Your task to perform on an android device: change text size in settings app Image 0: 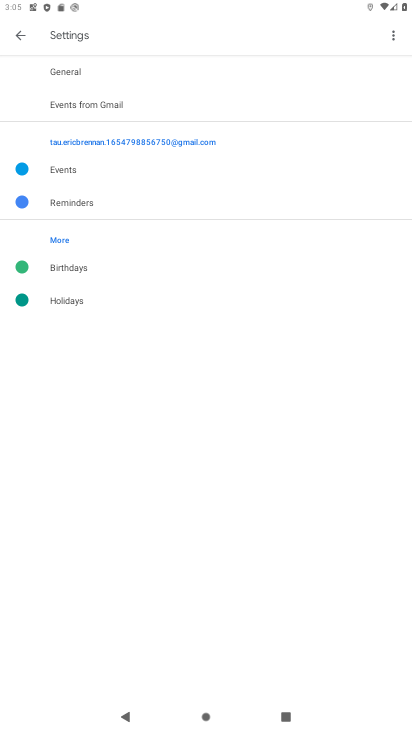
Step 0: press home button
Your task to perform on an android device: change text size in settings app Image 1: 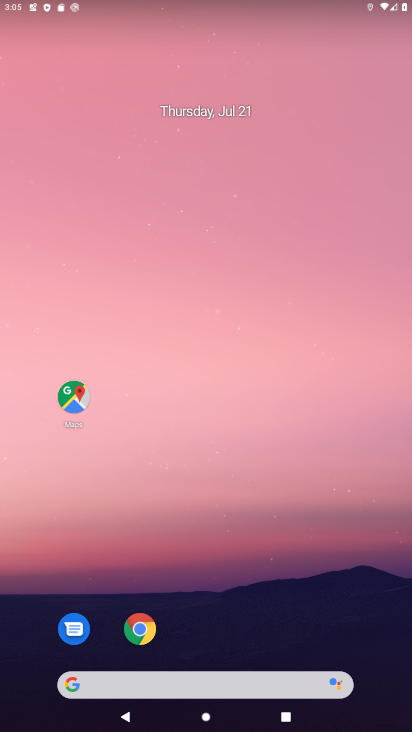
Step 1: drag from (213, 607) to (103, 6)
Your task to perform on an android device: change text size in settings app Image 2: 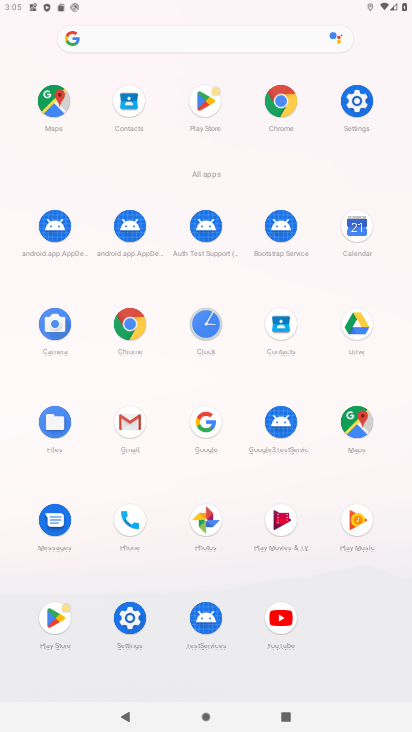
Step 2: click (133, 629)
Your task to perform on an android device: change text size in settings app Image 3: 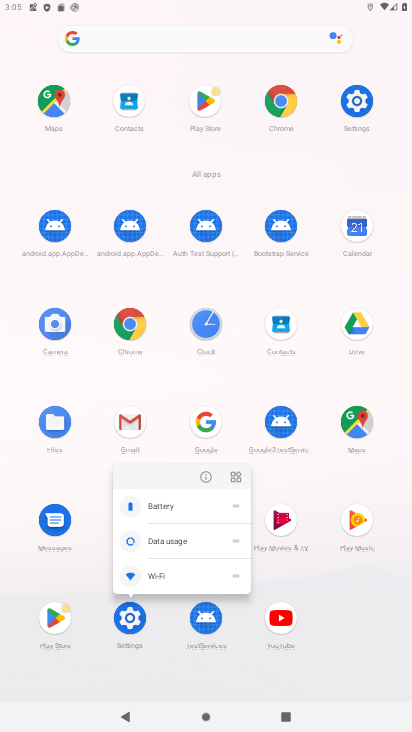
Step 3: click (134, 624)
Your task to perform on an android device: change text size in settings app Image 4: 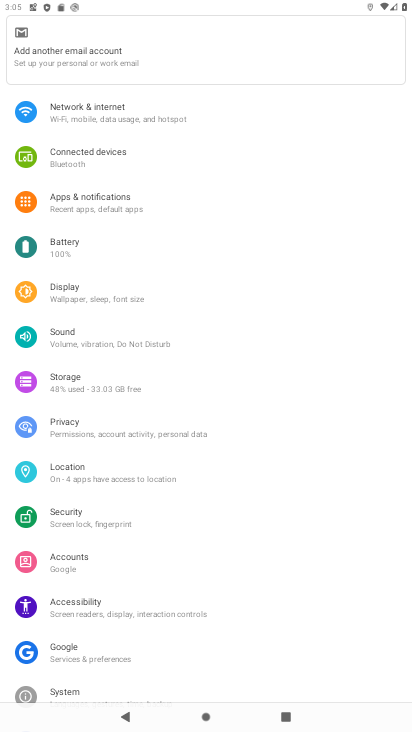
Step 4: click (84, 290)
Your task to perform on an android device: change text size in settings app Image 5: 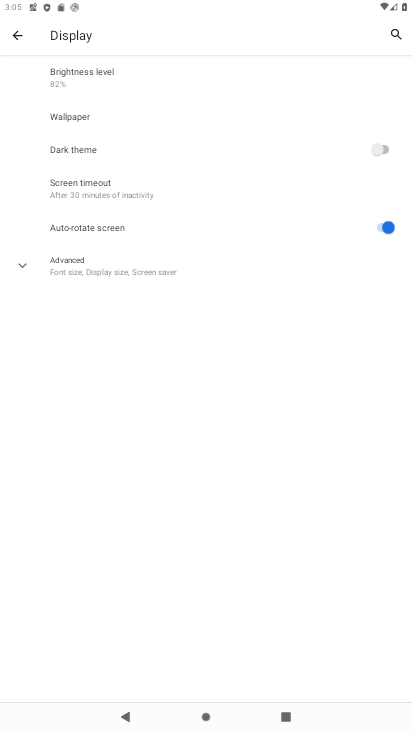
Step 5: click (86, 263)
Your task to perform on an android device: change text size in settings app Image 6: 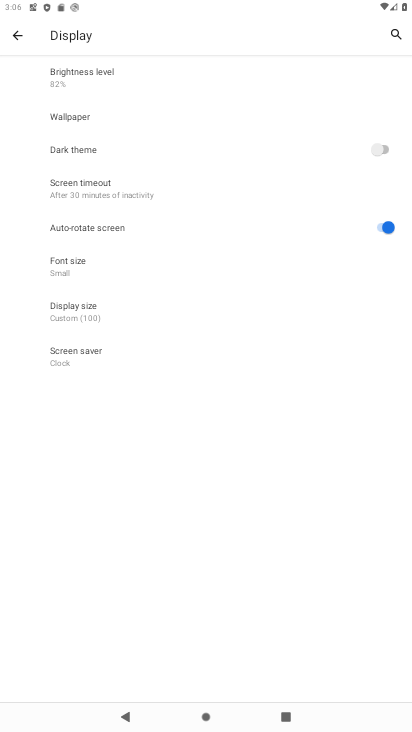
Step 6: click (78, 264)
Your task to perform on an android device: change text size in settings app Image 7: 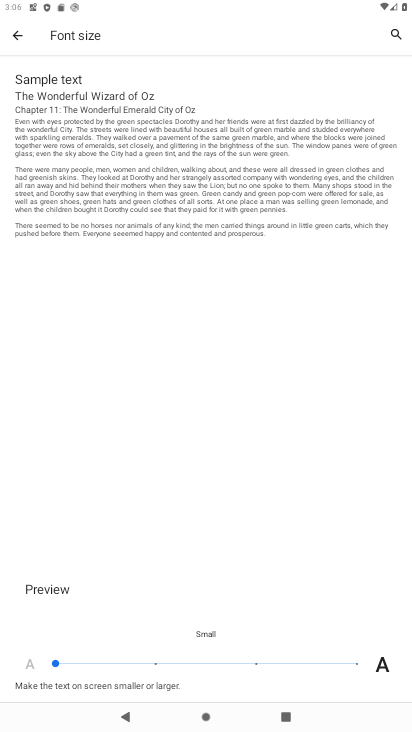
Step 7: click (358, 663)
Your task to perform on an android device: change text size in settings app Image 8: 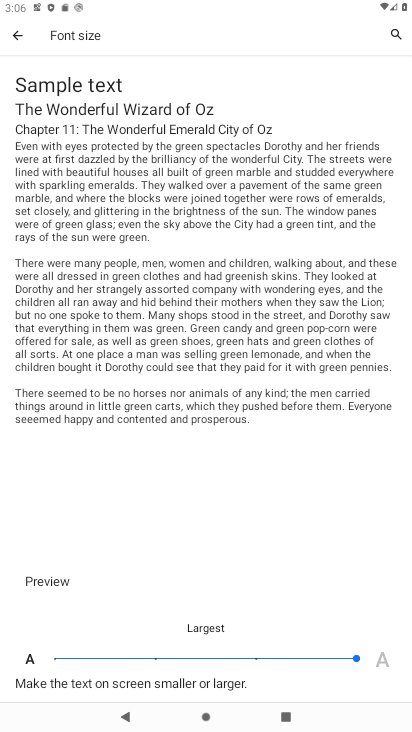
Step 8: task complete